Your task to perform on an android device: Open Google Maps and go to "Timeline" Image 0: 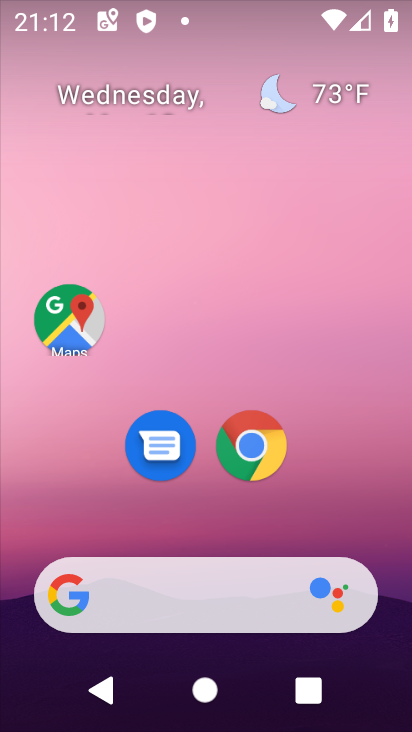
Step 0: click (62, 310)
Your task to perform on an android device: Open Google Maps and go to "Timeline" Image 1: 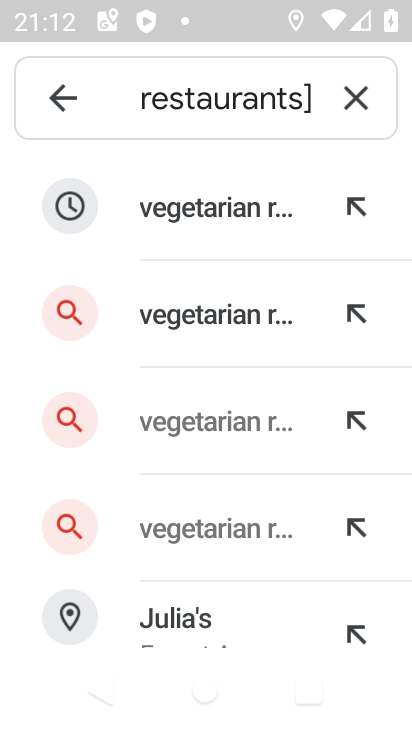
Step 1: click (47, 83)
Your task to perform on an android device: Open Google Maps and go to "Timeline" Image 2: 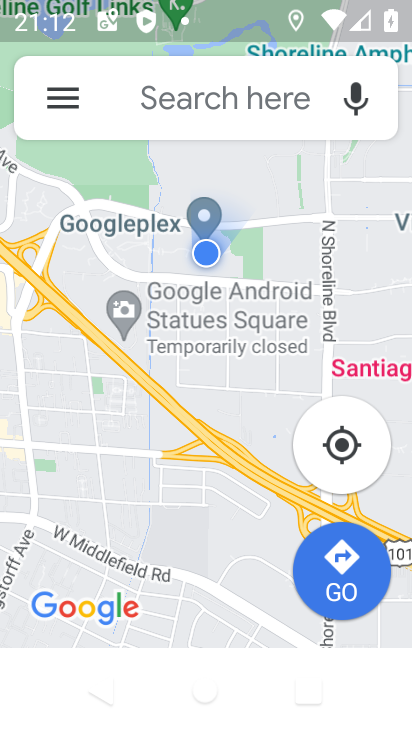
Step 2: click (46, 84)
Your task to perform on an android device: Open Google Maps and go to "Timeline" Image 3: 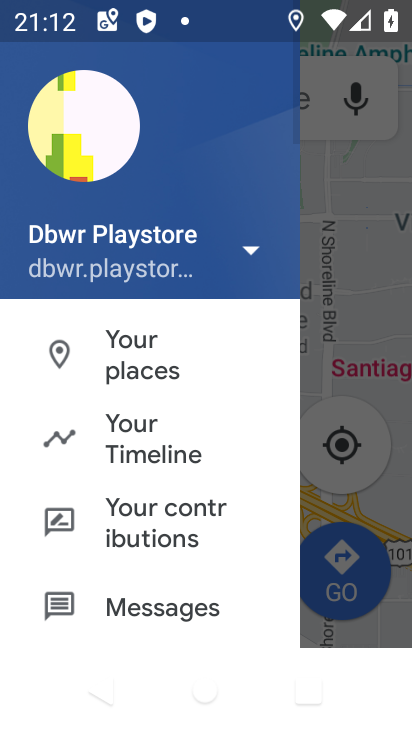
Step 3: click (174, 465)
Your task to perform on an android device: Open Google Maps and go to "Timeline" Image 4: 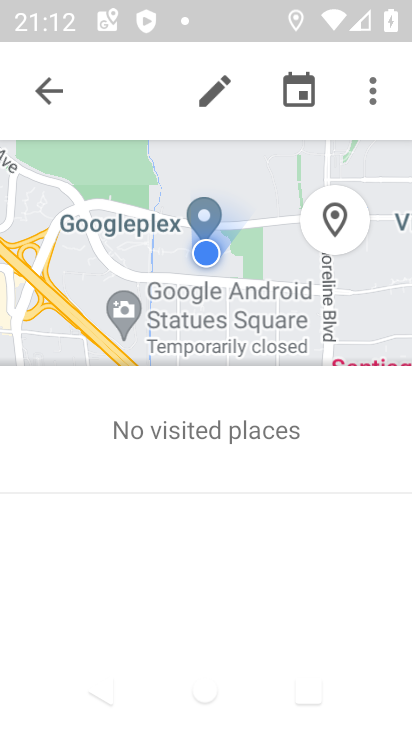
Step 4: task complete